Your task to perform on an android device: Search for pizza restaurants on Maps Image 0: 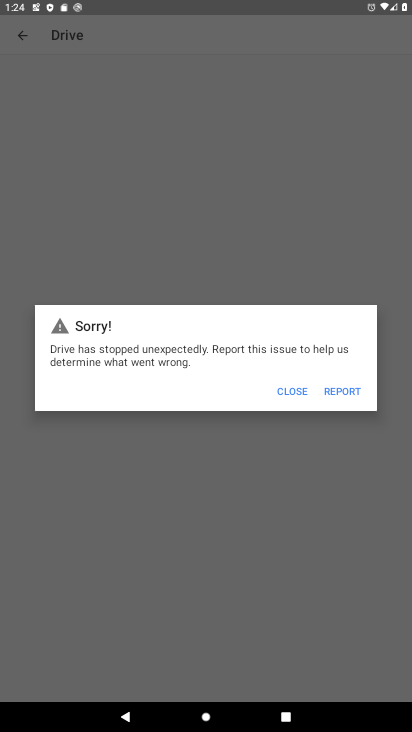
Step 0: press home button
Your task to perform on an android device: Search for pizza restaurants on Maps Image 1: 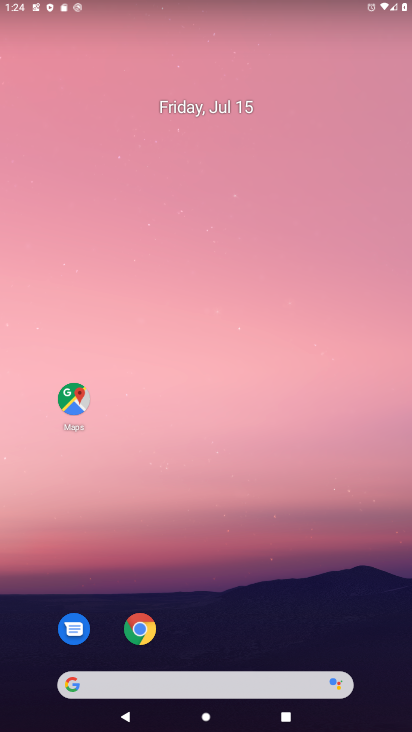
Step 1: drag from (338, 614) to (257, 120)
Your task to perform on an android device: Search for pizza restaurants on Maps Image 2: 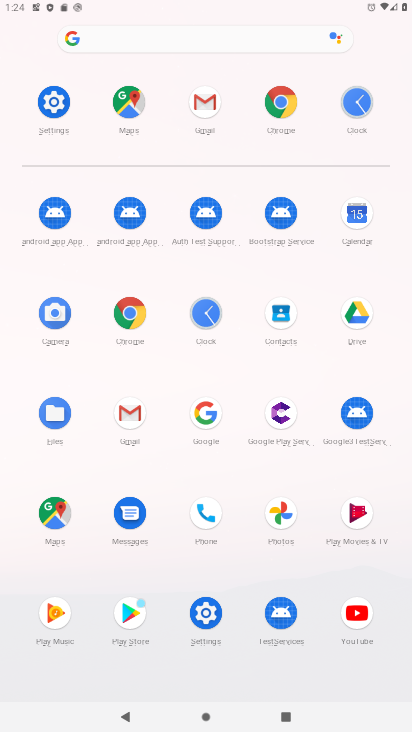
Step 2: click (128, 103)
Your task to perform on an android device: Search for pizza restaurants on Maps Image 3: 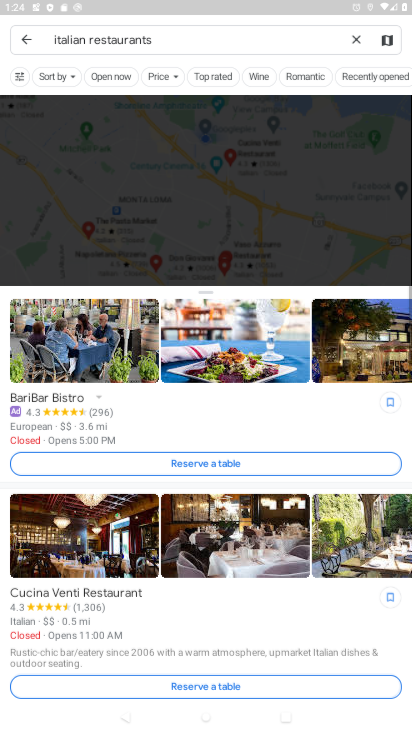
Step 3: click (174, 47)
Your task to perform on an android device: Search for pizza restaurants on Maps Image 4: 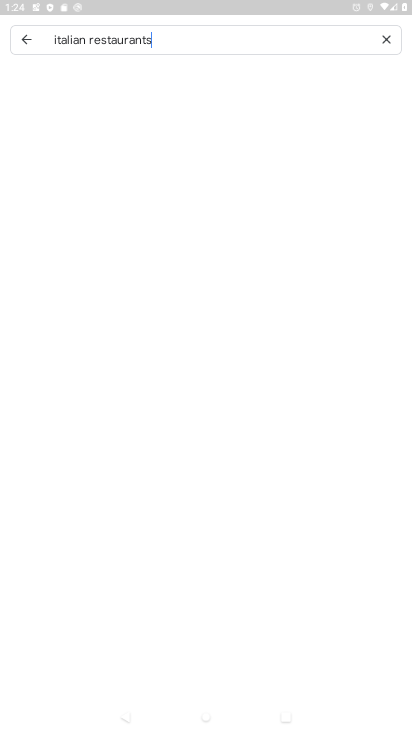
Step 4: click (389, 35)
Your task to perform on an android device: Search for pizza restaurants on Maps Image 5: 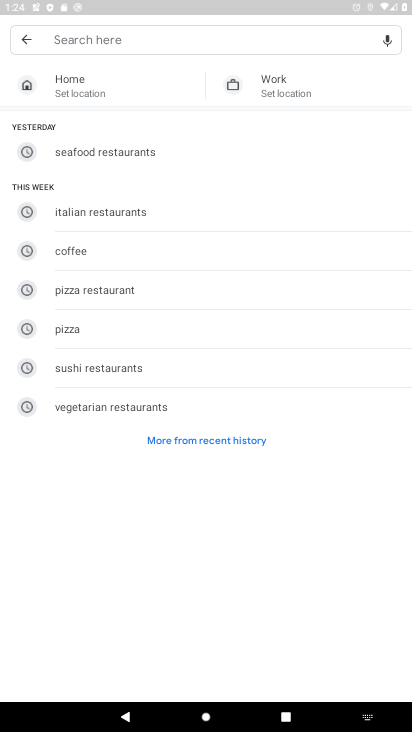
Step 5: type "pizza restaurants"
Your task to perform on an android device: Search for pizza restaurants on Maps Image 6: 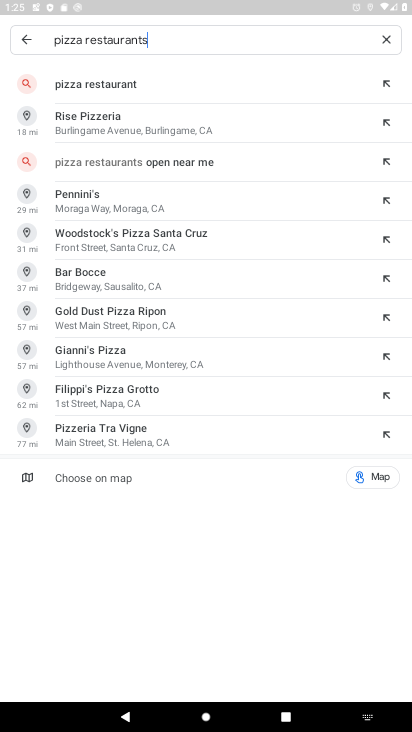
Step 6: press enter
Your task to perform on an android device: Search for pizza restaurants on Maps Image 7: 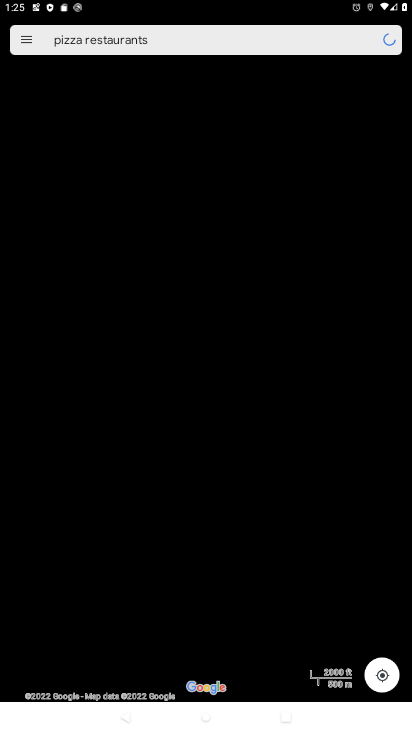
Step 7: press enter
Your task to perform on an android device: Search for pizza restaurants on Maps Image 8: 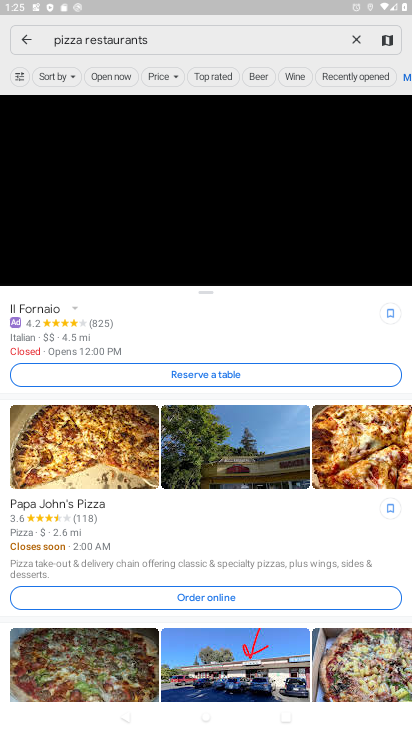
Step 8: task complete